Your task to perform on an android device: open wifi settings Image 0: 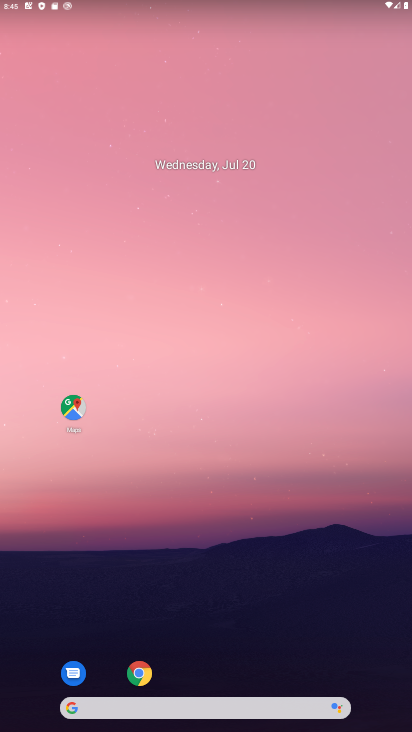
Step 0: drag from (201, 678) to (225, 65)
Your task to perform on an android device: open wifi settings Image 1: 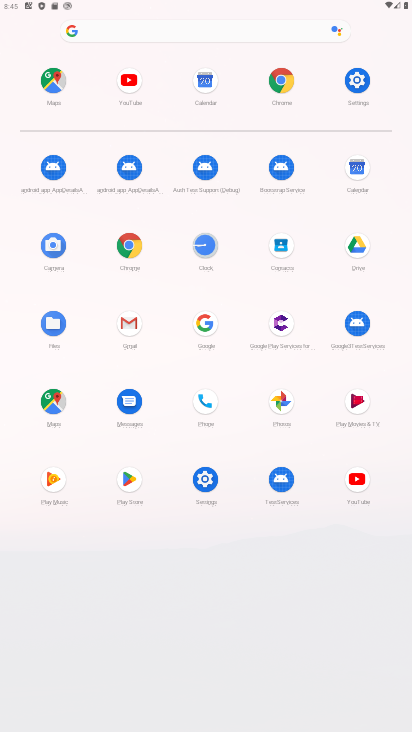
Step 1: click (205, 477)
Your task to perform on an android device: open wifi settings Image 2: 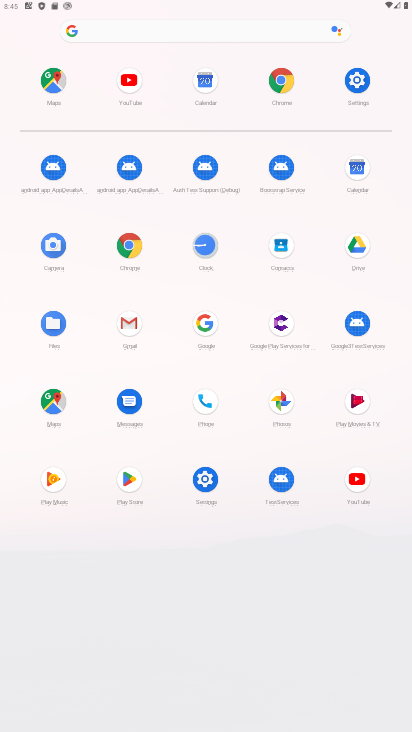
Step 2: click (205, 477)
Your task to perform on an android device: open wifi settings Image 3: 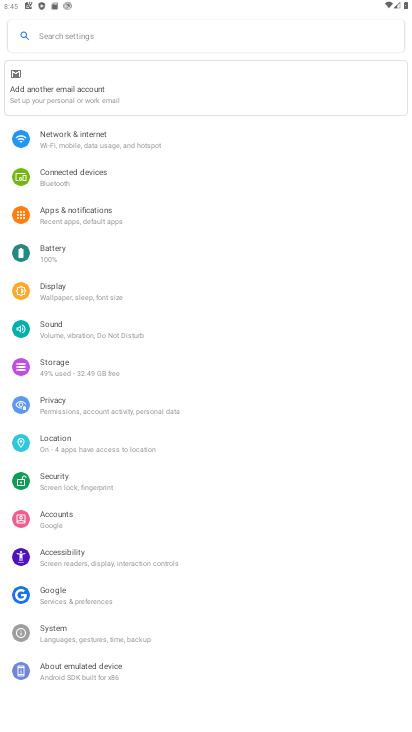
Step 3: click (88, 135)
Your task to perform on an android device: open wifi settings Image 4: 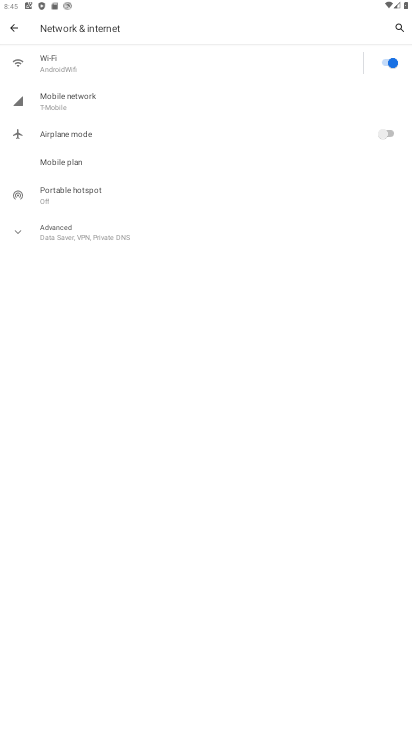
Step 4: click (140, 62)
Your task to perform on an android device: open wifi settings Image 5: 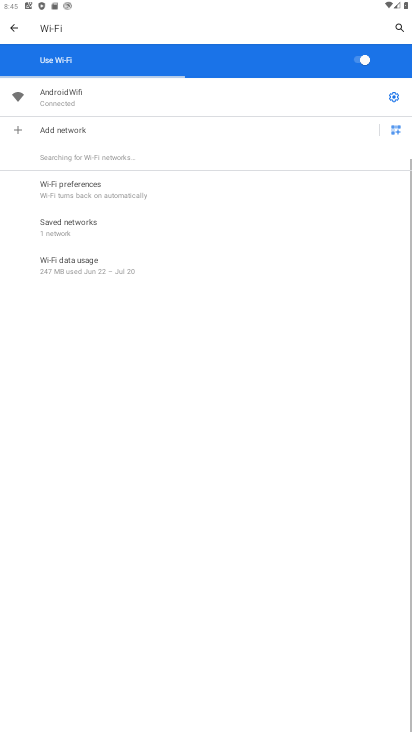
Step 5: click (395, 95)
Your task to perform on an android device: open wifi settings Image 6: 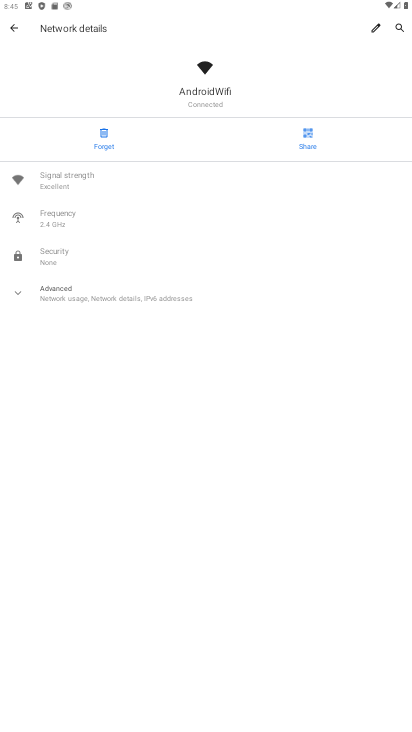
Step 6: task complete